Your task to perform on an android device: turn on translation in the chrome app Image 0: 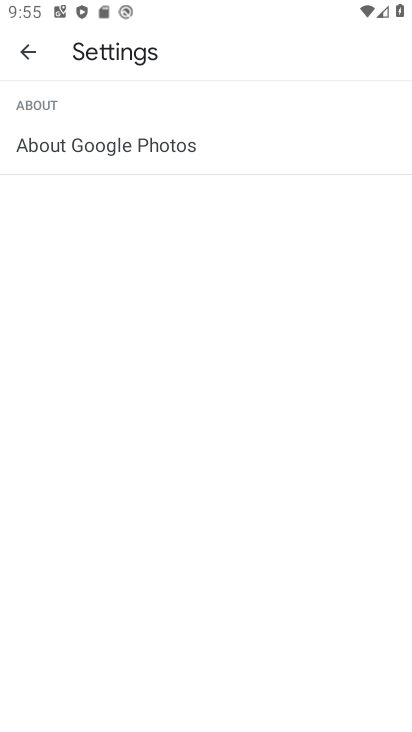
Step 0: press home button
Your task to perform on an android device: turn on translation in the chrome app Image 1: 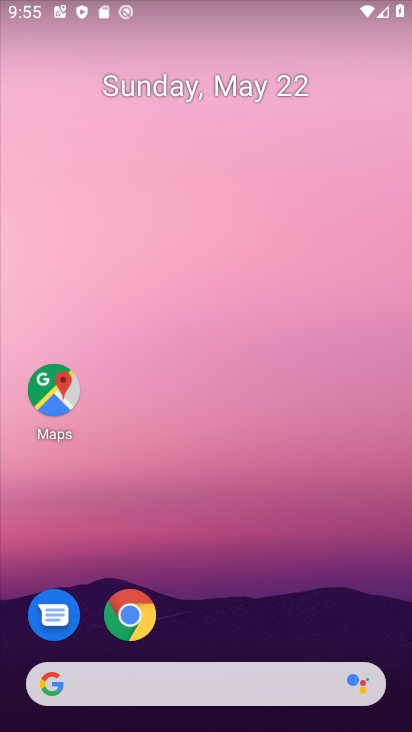
Step 1: click (137, 600)
Your task to perform on an android device: turn on translation in the chrome app Image 2: 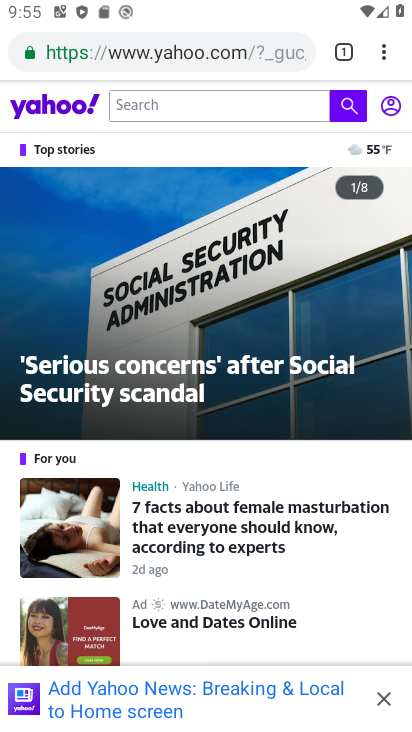
Step 2: drag from (384, 52) to (221, 588)
Your task to perform on an android device: turn on translation in the chrome app Image 3: 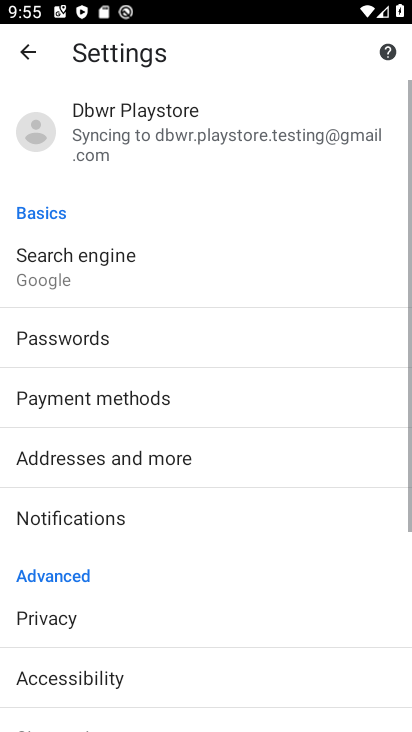
Step 3: drag from (166, 490) to (280, 58)
Your task to perform on an android device: turn on translation in the chrome app Image 4: 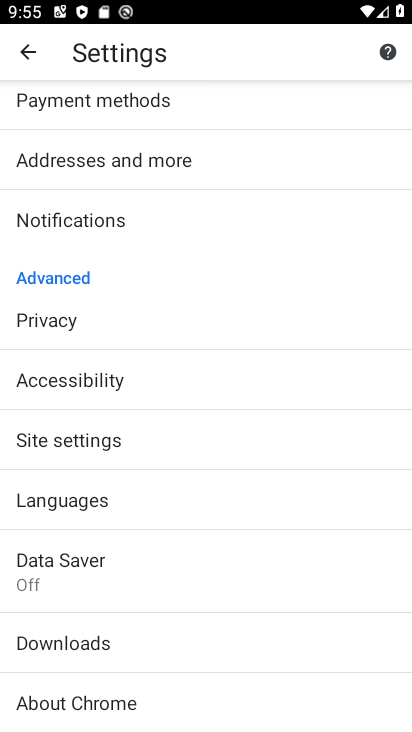
Step 4: click (62, 498)
Your task to perform on an android device: turn on translation in the chrome app Image 5: 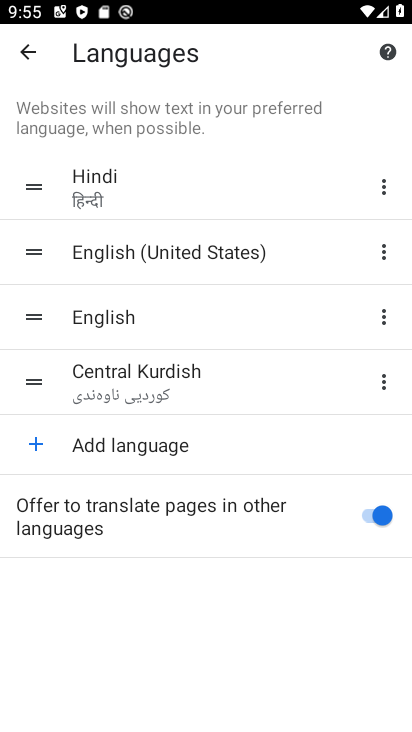
Step 5: task complete